Your task to perform on an android device: Check the weather Image 0: 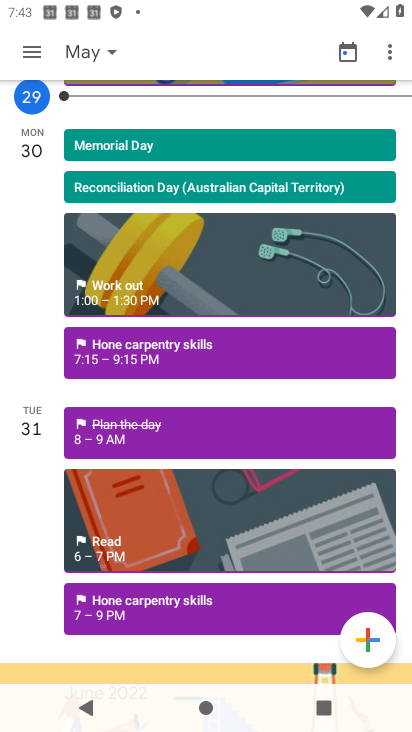
Step 0: press back button
Your task to perform on an android device: Check the weather Image 1: 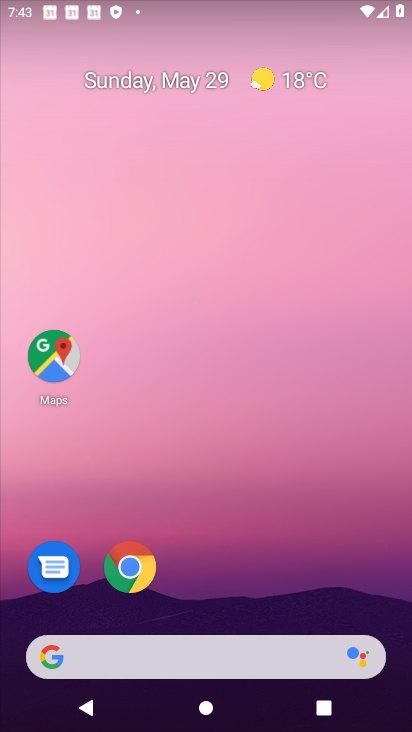
Step 1: drag from (223, 588) to (165, 104)
Your task to perform on an android device: Check the weather Image 2: 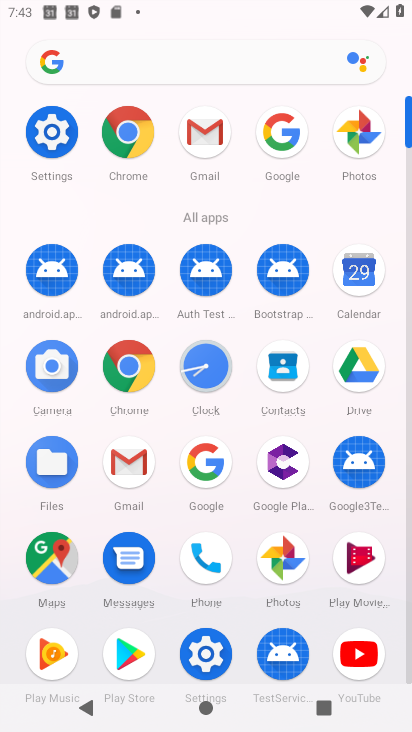
Step 2: click (277, 133)
Your task to perform on an android device: Check the weather Image 3: 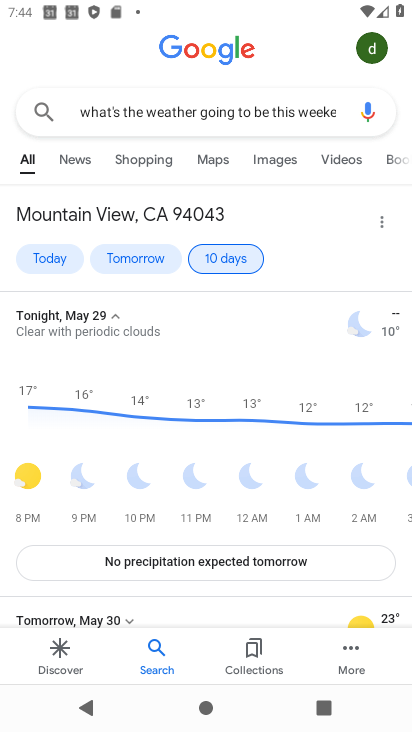
Step 3: click (52, 252)
Your task to perform on an android device: Check the weather Image 4: 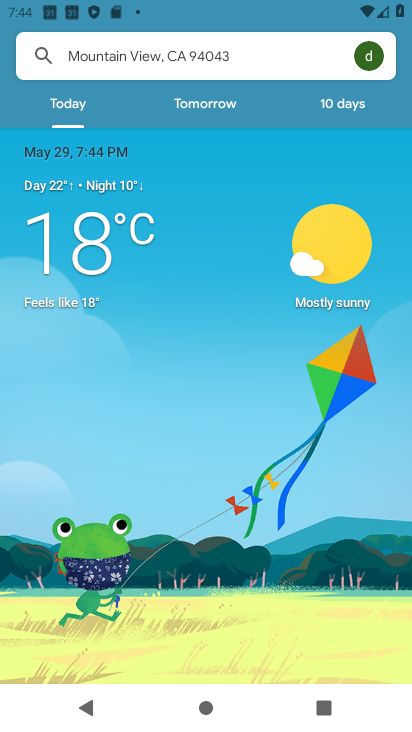
Step 4: task complete